Your task to perform on an android device: Search for pizza restaurants on Maps Image 0: 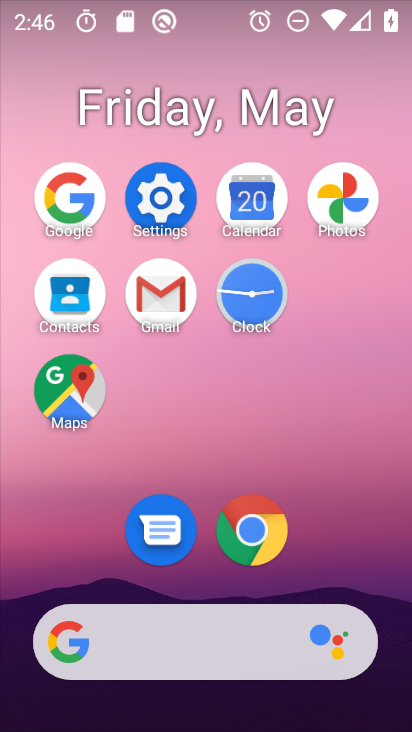
Step 0: click (63, 393)
Your task to perform on an android device: Search for pizza restaurants on Maps Image 1: 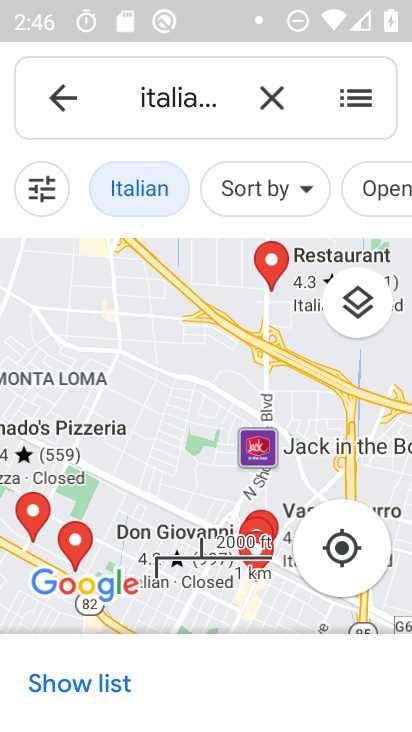
Step 1: click (261, 104)
Your task to perform on an android device: Search for pizza restaurants on Maps Image 2: 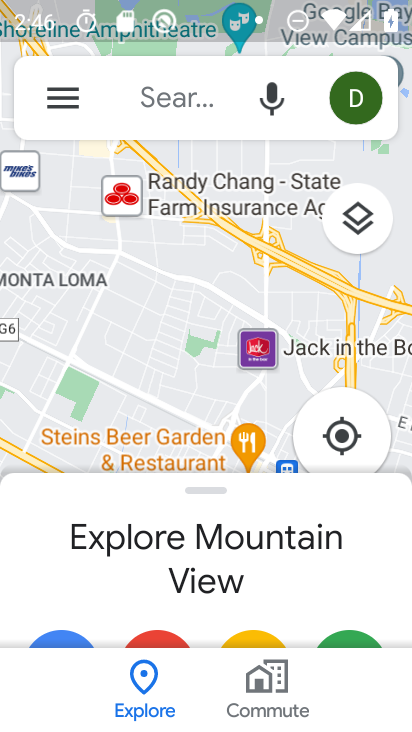
Step 2: click (203, 104)
Your task to perform on an android device: Search for pizza restaurants on Maps Image 3: 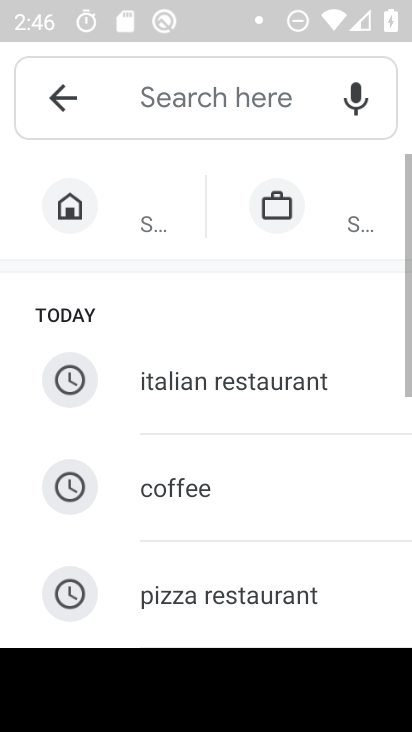
Step 3: click (238, 595)
Your task to perform on an android device: Search for pizza restaurants on Maps Image 4: 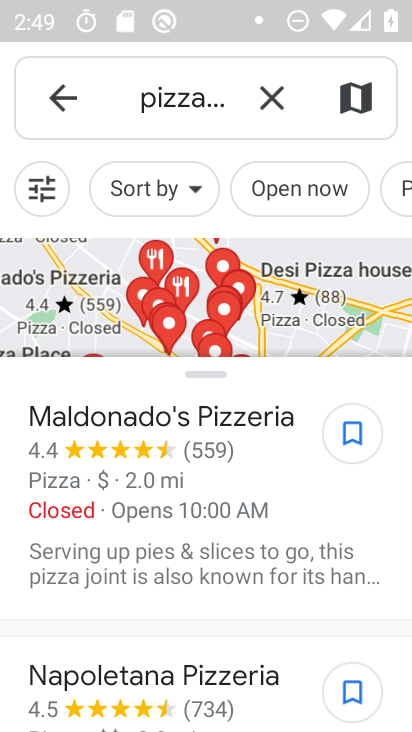
Step 4: task complete